Your task to perform on an android device: Open Chrome and go to the settings page Image 0: 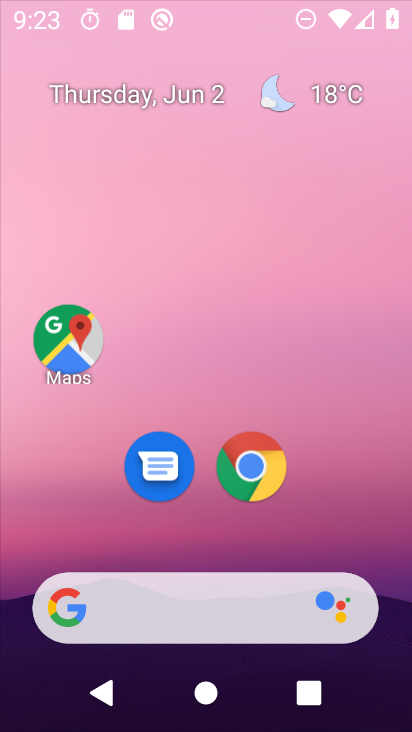
Step 0: press home button
Your task to perform on an android device: Open Chrome and go to the settings page Image 1: 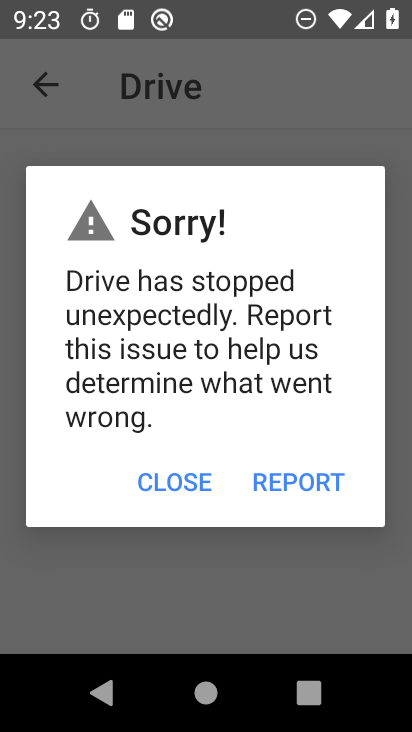
Step 1: drag from (351, 99) to (342, 38)
Your task to perform on an android device: Open Chrome and go to the settings page Image 2: 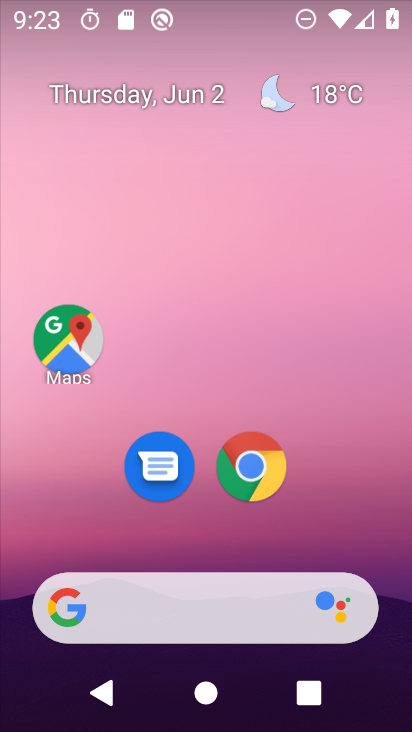
Step 2: click (308, 534)
Your task to perform on an android device: Open Chrome and go to the settings page Image 3: 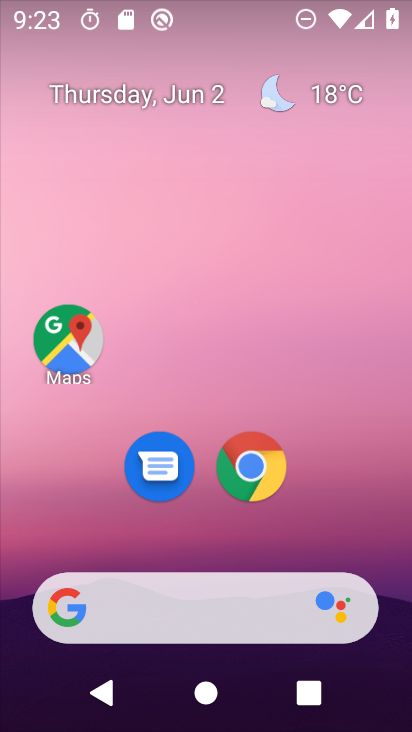
Step 3: click (258, 467)
Your task to perform on an android device: Open Chrome and go to the settings page Image 4: 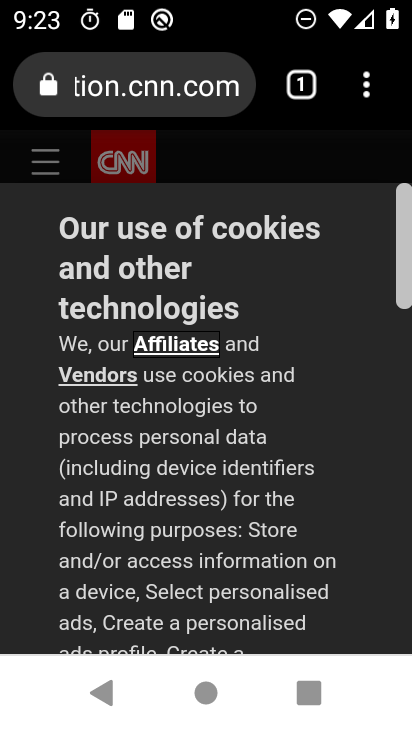
Step 4: task complete